Your task to perform on an android device: Show me the alarms in the clock app Image 0: 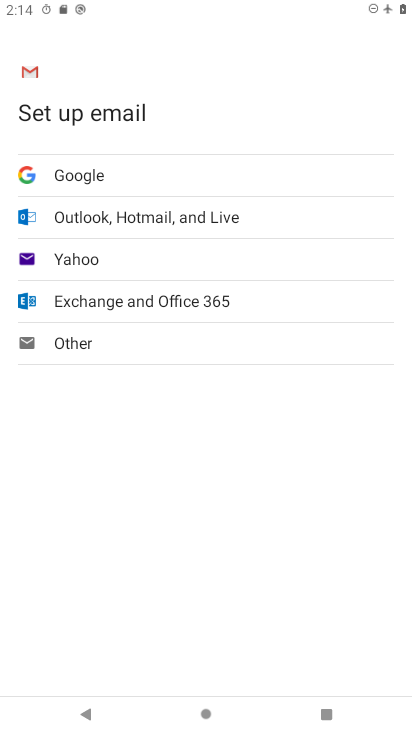
Step 0: press home button
Your task to perform on an android device: Show me the alarms in the clock app Image 1: 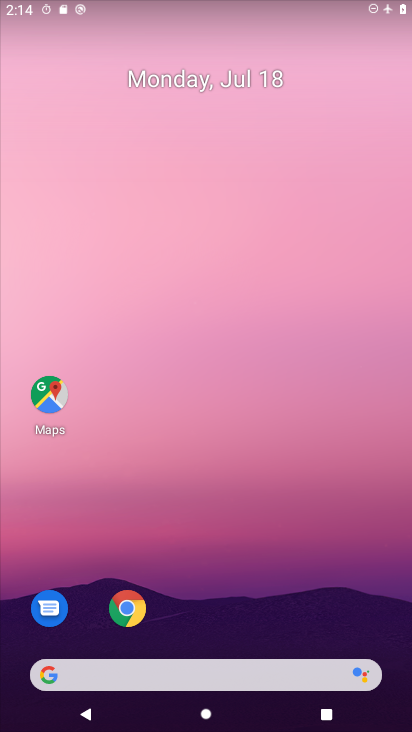
Step 1: drag from (245, 679) to (223, 215)
Your task to perform on an android device: Show me the alarms in the clock app Image 2: 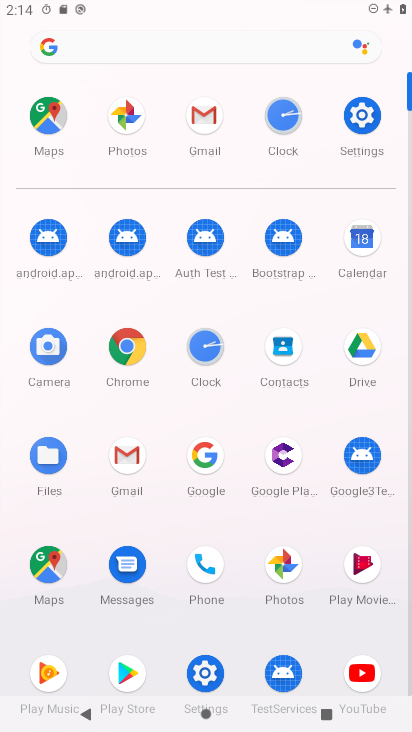
Step 2: click (197, 353)
Your task to perform on an android device: Show me the alarms in the clock app Image 3: 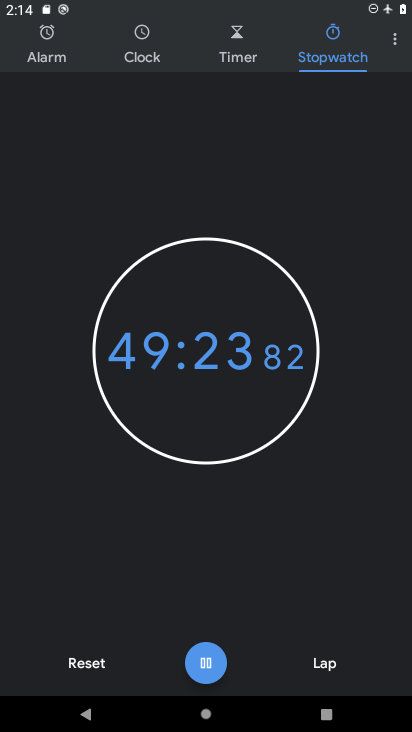
Step 3: click (36, 36)
Your task to perform on an android device: Show me the alarms in the clock app Image 4: 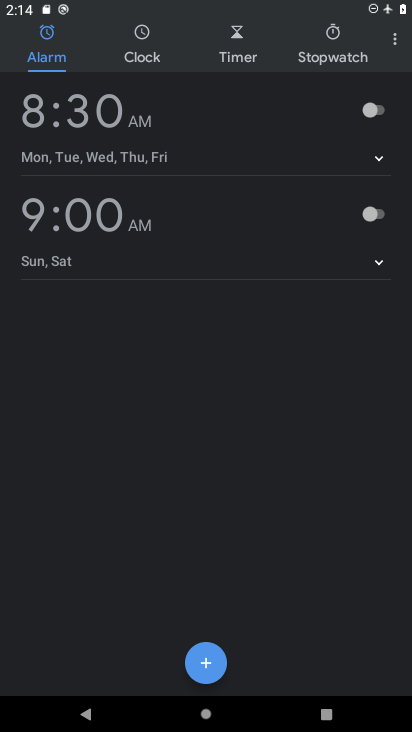
Step 4: task complete